Your task to perform on an android device: change notification settings in the gmail app Image 0: 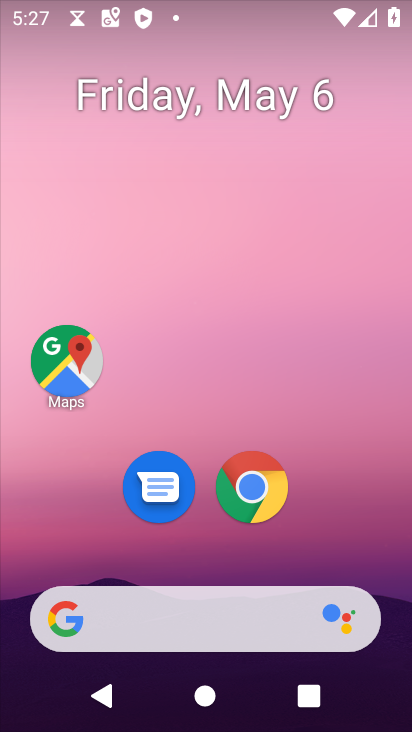
Step 0: drag from (320, 554) to (306, 2)
Your task to perform on an android device: change notification settings in the gmail app Image 1: 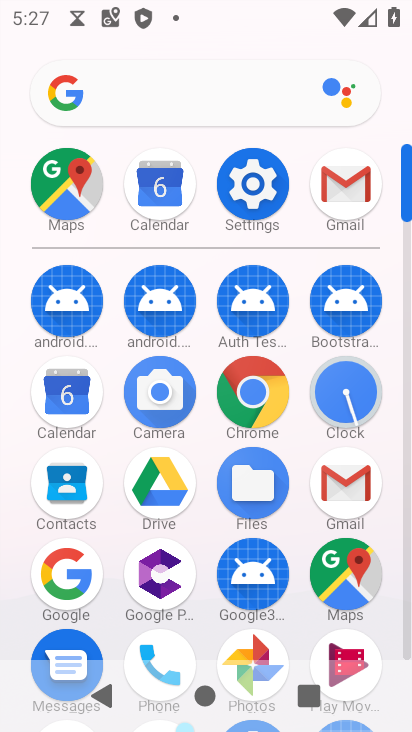
Step 1: click (253, 184)
Your task to perform on an android device: change notification settings in the gmail app Image 2: 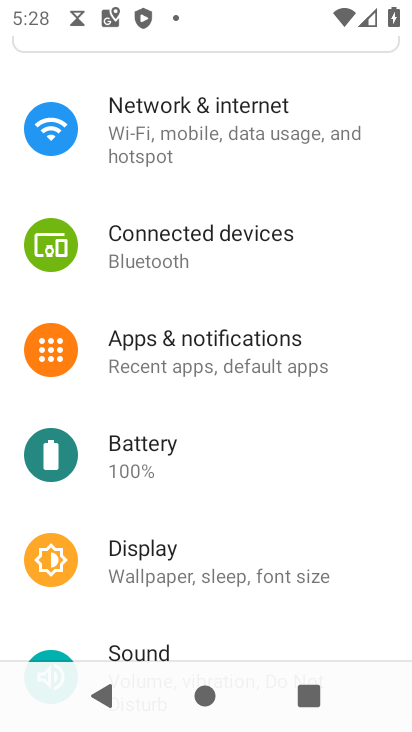
Step 2: press home button
Your task to perform on an android device: change notification settings in the gmail app Image 3: 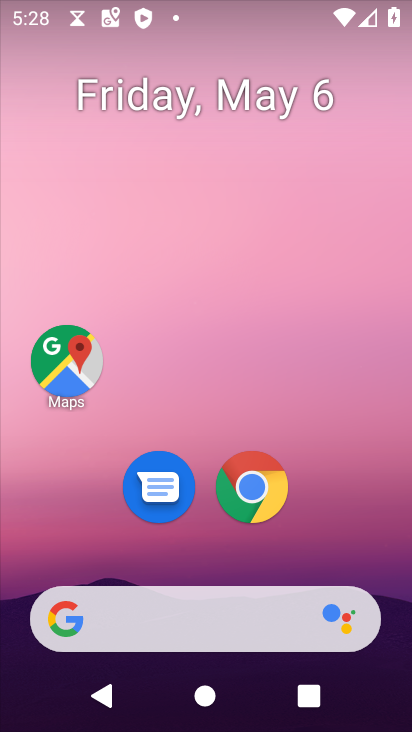
Step 3: drag from (328, 523) to (297, 164)
Your task to perform on an android device: change notification settings in the gmail app Image 4: 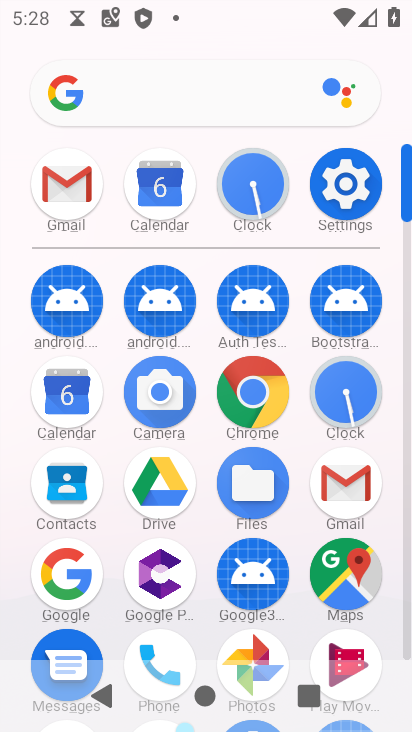
Step 4: click (62, 184)
Your task to perform on an android device: change notification settings in the gmail app Image 5: 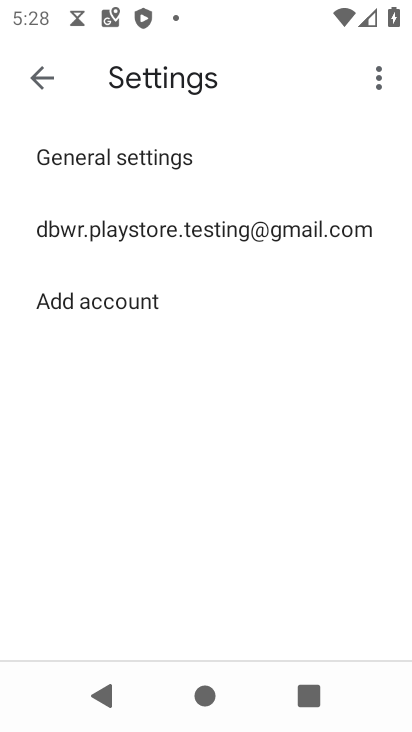
Step 5: click (128, 236)
Your task to perform on an android device: change notification settings in the gmail app Image 6: 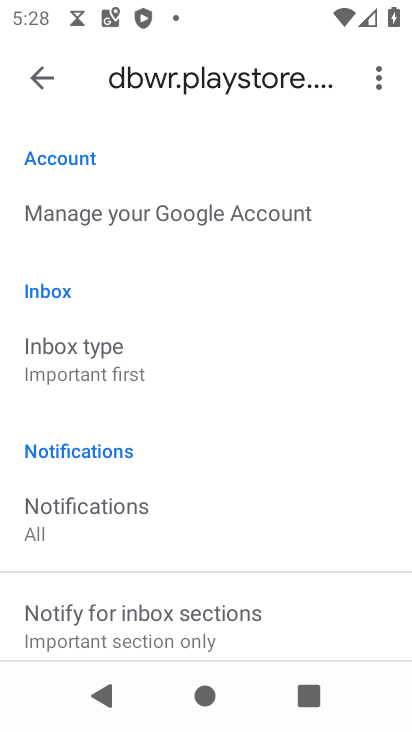
Step 6: drag from (178, 457) to (185, 343)
Your task to perform on an android device: change notification settings in the gmail app Image 7: 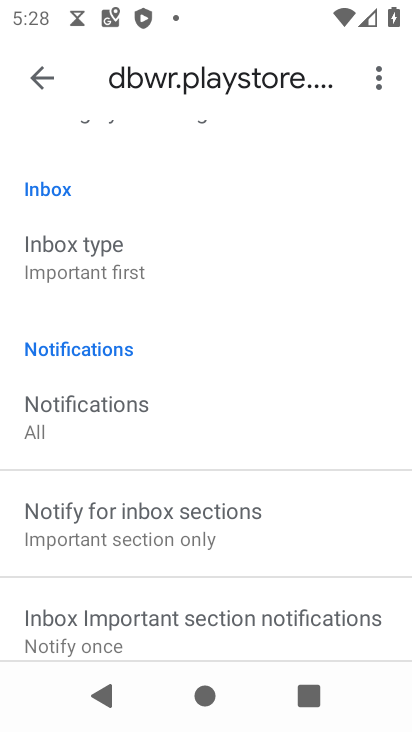
Step 7: drag from (157, 447) to (239, 290)
Your task to perform on an android device: change notification settings in the gmail app Image 8: 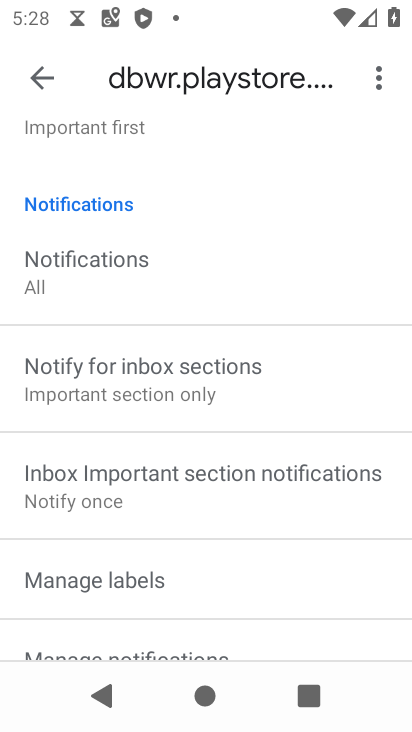
Step 8: drag from (195, 586) to (251, 394)
Your task to perform on an android device: change notification settings in the gmail app Image 9: 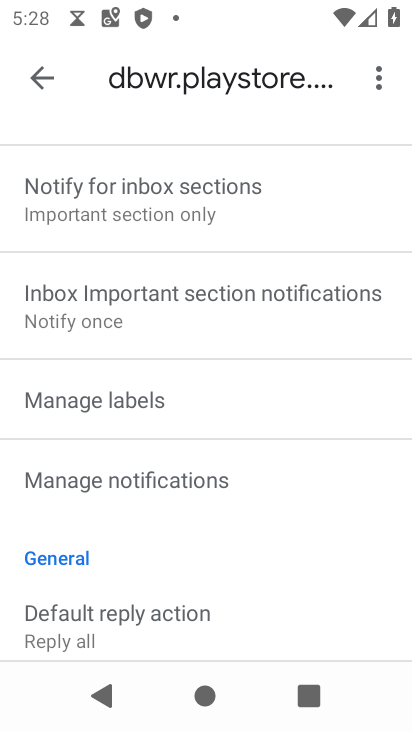
Step 9: click (190, 478)
Your task to perform on an android device: change notification settings in the gmail app Image 10: 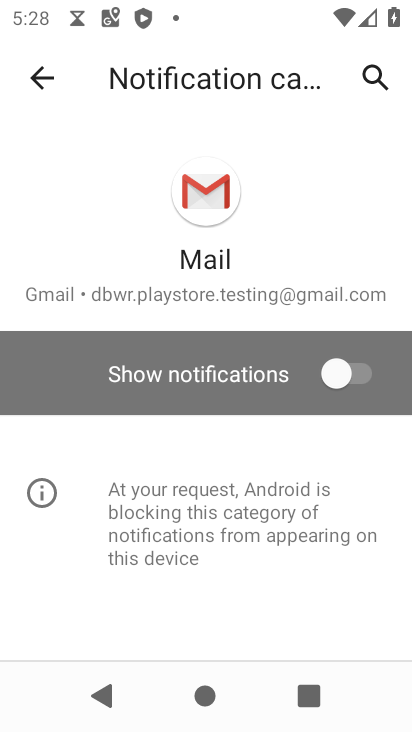
Step 10: click (337, 371)
Your task to perform on an android device: change notification settings in the gmail app Image 11: 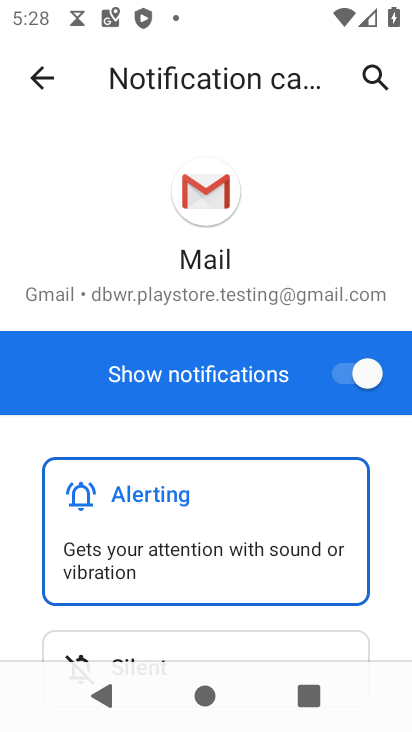
Step 11: task complete